Your task to perform on an android device: uninstall "Venmo" Image 0: 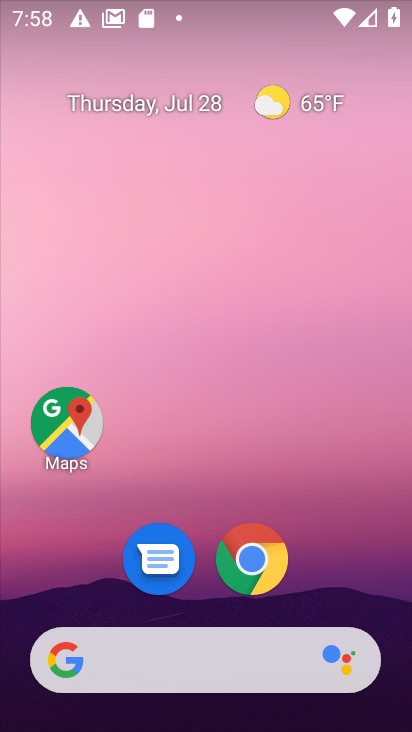
Step 0: click (238, 144)
Your task to perform on an android device: uninstall "Venmo" Image 1: 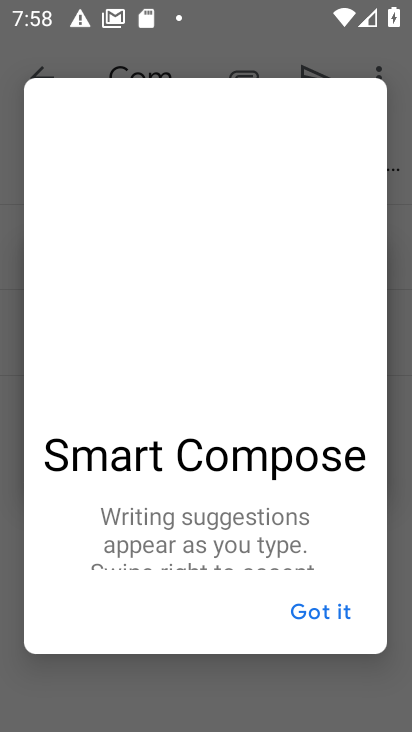
Step 1: press home button
Your task to perform on an android device: uninstall "Venmo" Image 2: 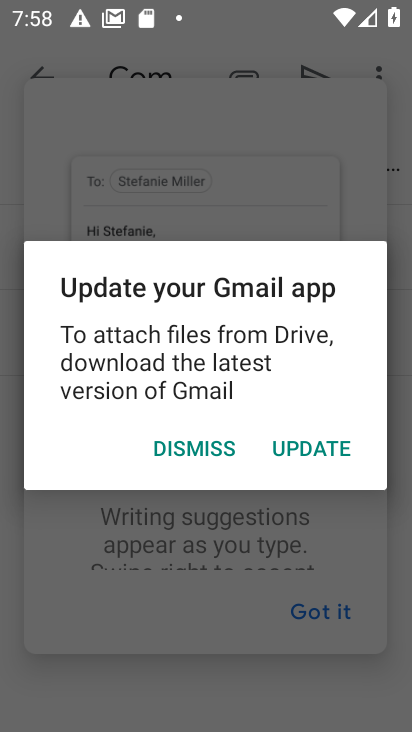
Step 2: press home button
Your task to perform on an android device: uninstall "Venmo" Image 3: 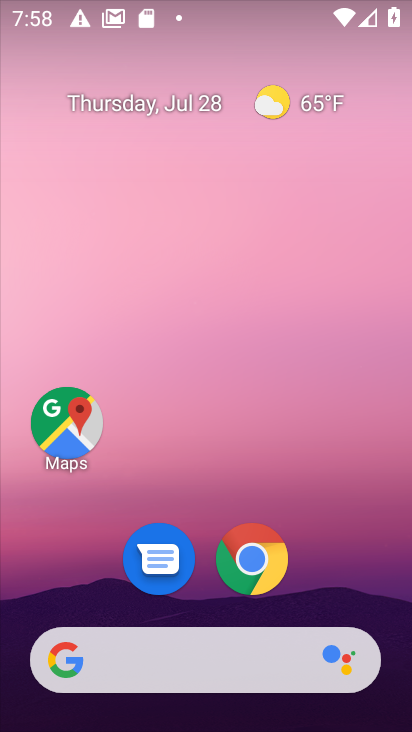
Step 3: drag from (221, 588) to (204, 179)
Your task to perform on an android device: uninstall "Venmo" Image 4: 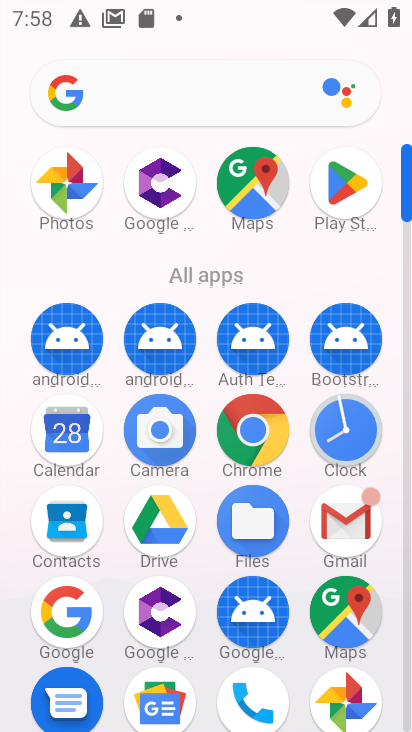
Step 4: click (347, 192)
Your task to perform on an android device: uninstall "Venmo" Image 5: 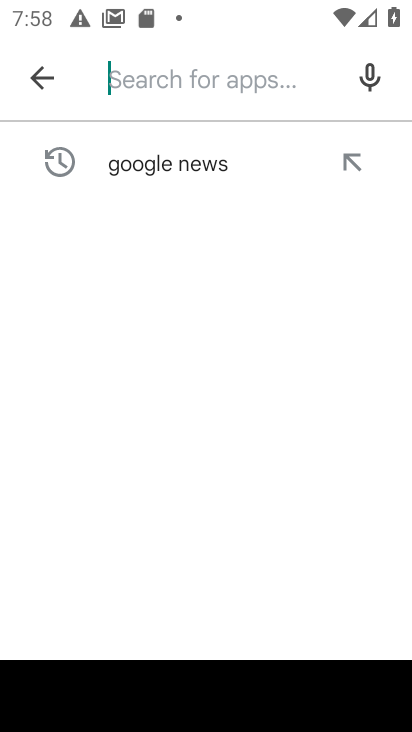
Step 5: type "Venmo"
Your task to perform on an android device: uninstall "Venmo" Image 6: 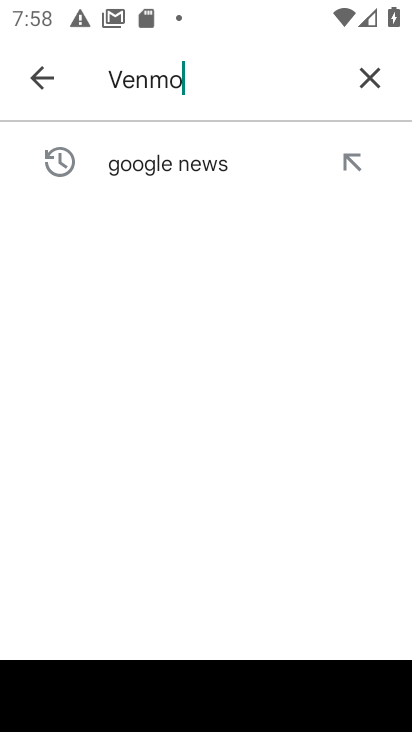
Step 6: type ""
Your task to perform on an android device: uninstall "Venmo" Image 7: 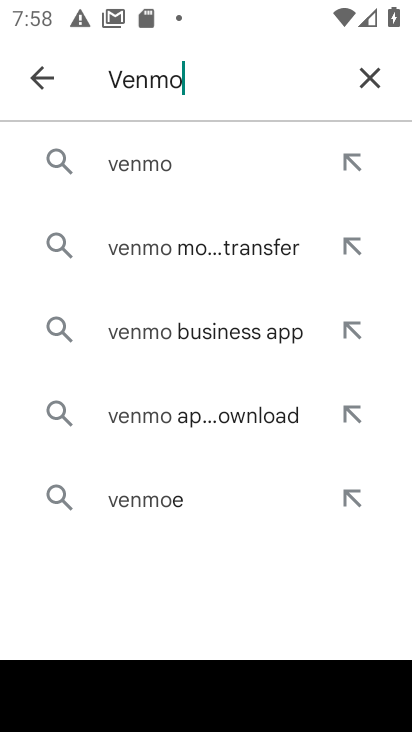
Step 7: click (107, 162)
Your task to perform on an android device: uninstall "Venmo" Image 8: 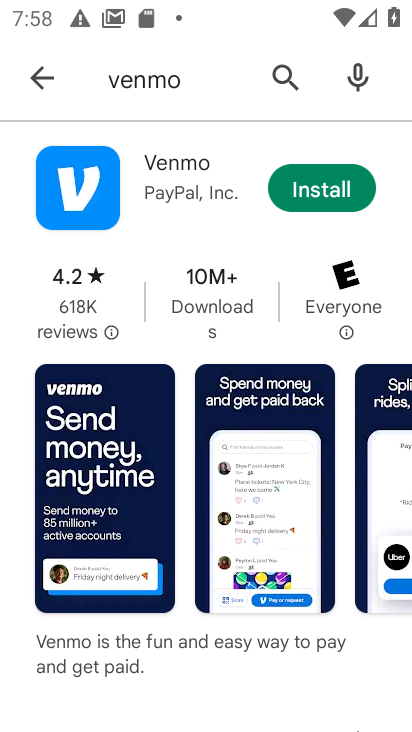
Step 8: click (121, 173)
Your task to perform on an android device: uninstall "Venmo" Image 9: 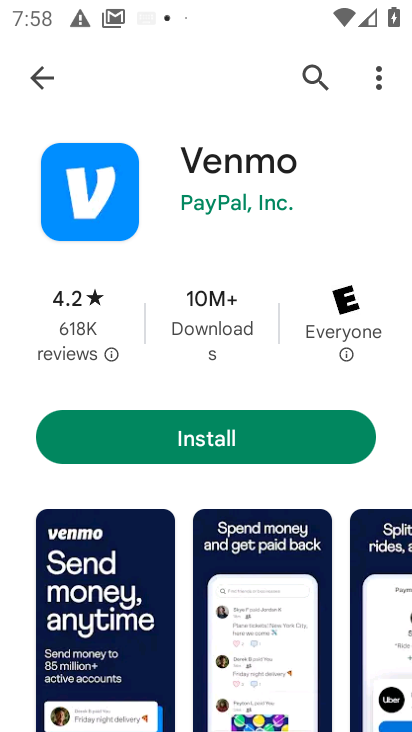
Step 9: task complete